Your task to perform on an android device: turn off priority inbox in the gmail app Image 0: 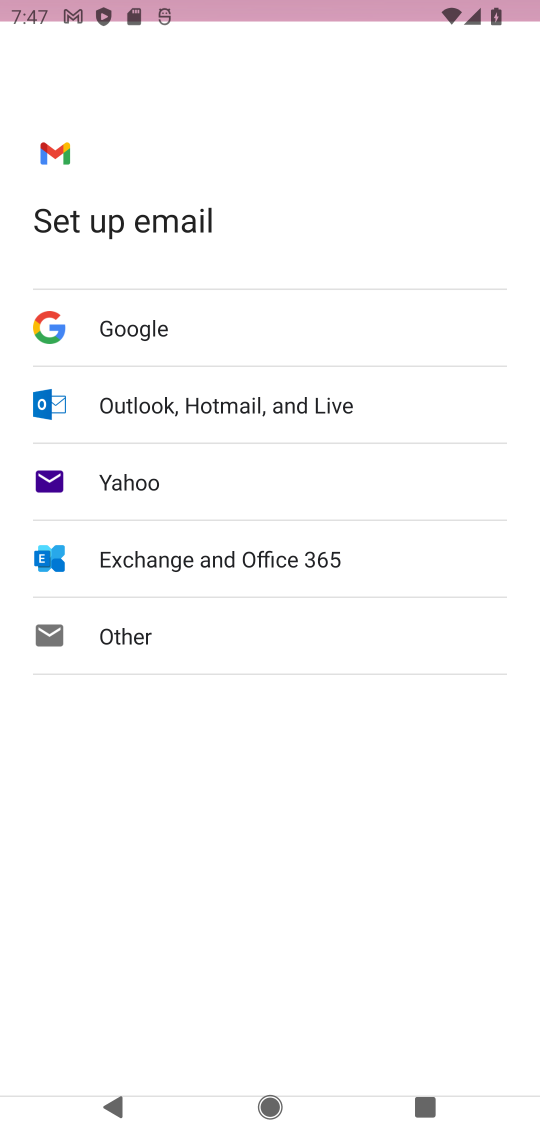
Step 0: press home button
Your task to perform on an android device: turn off priority inbox in the gmail app Image 1: 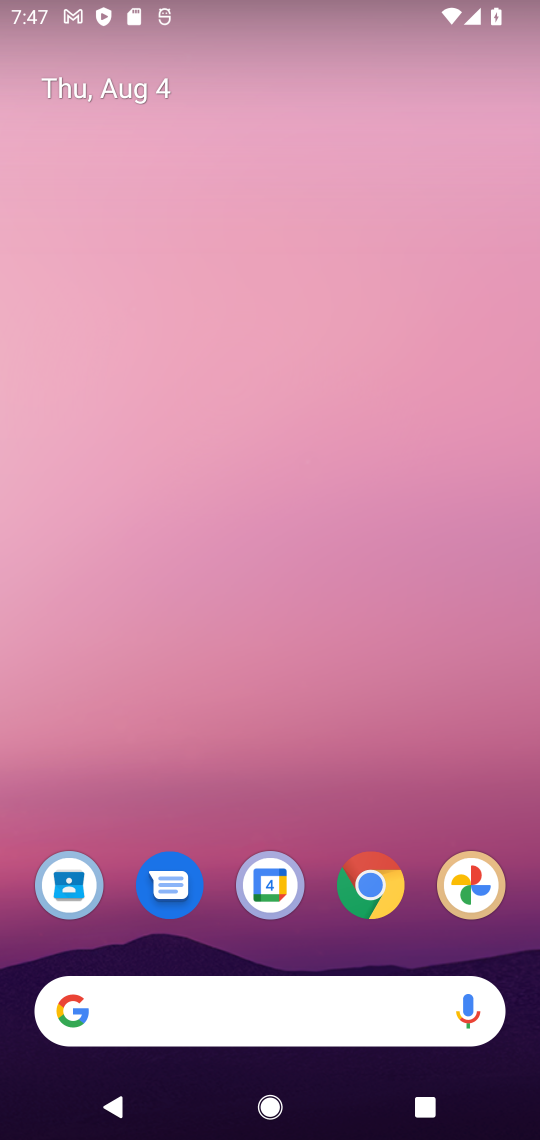
Step 1: drag from (289, 989) to (274, 4)
Your task to perform on an android device: turn off priority inbox in the gmail app Image 2: 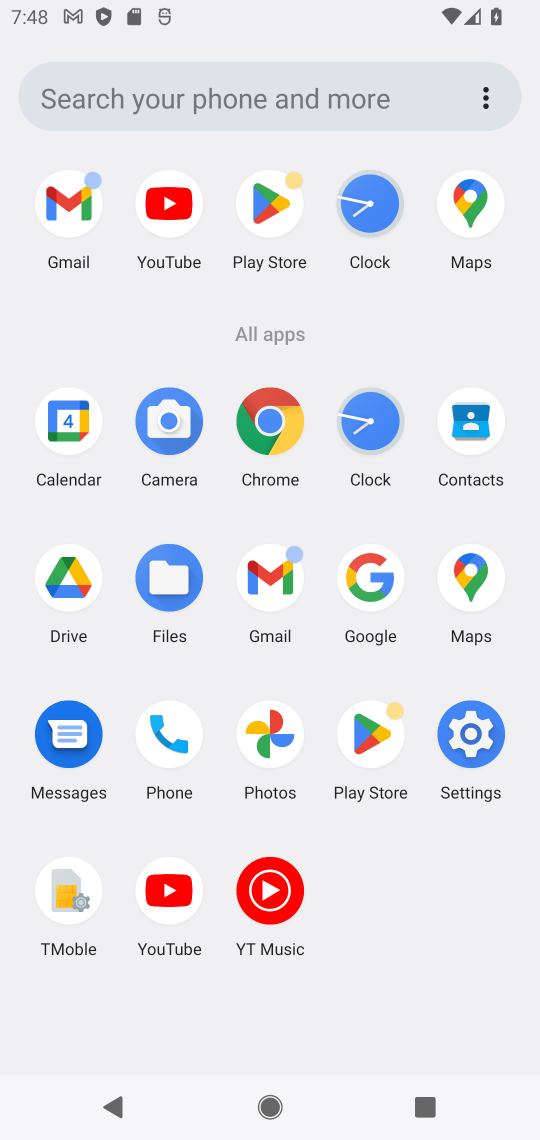
Step 2: click (259, 605)
Your task to perform on an android device: turn off priority inbox in the gmail app Image 3: 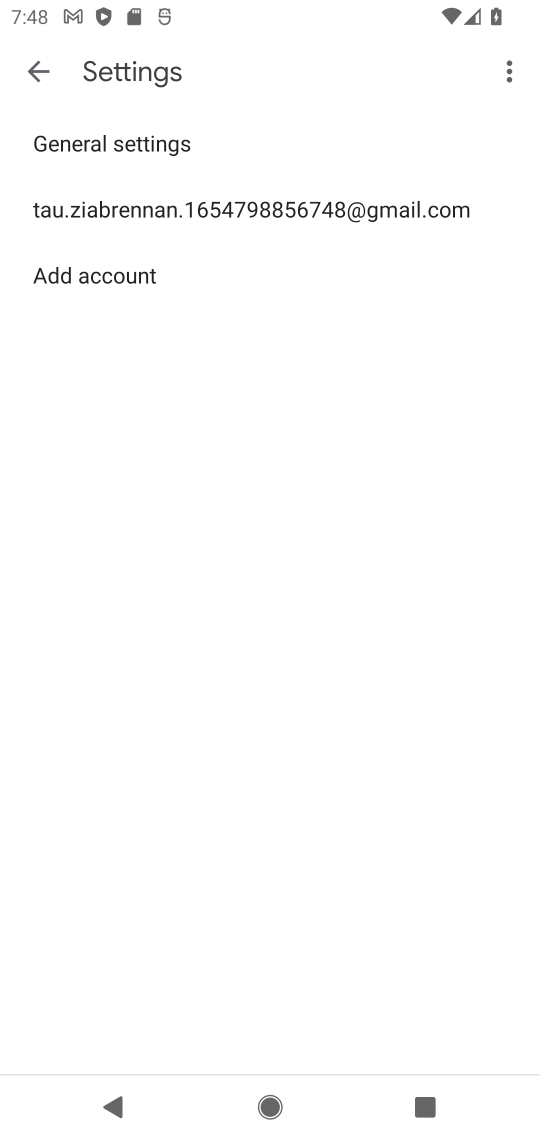
Step 3: click (218, 199)
Your task to perform on an android device: turn off priority inbox in the gmail app Image 4: 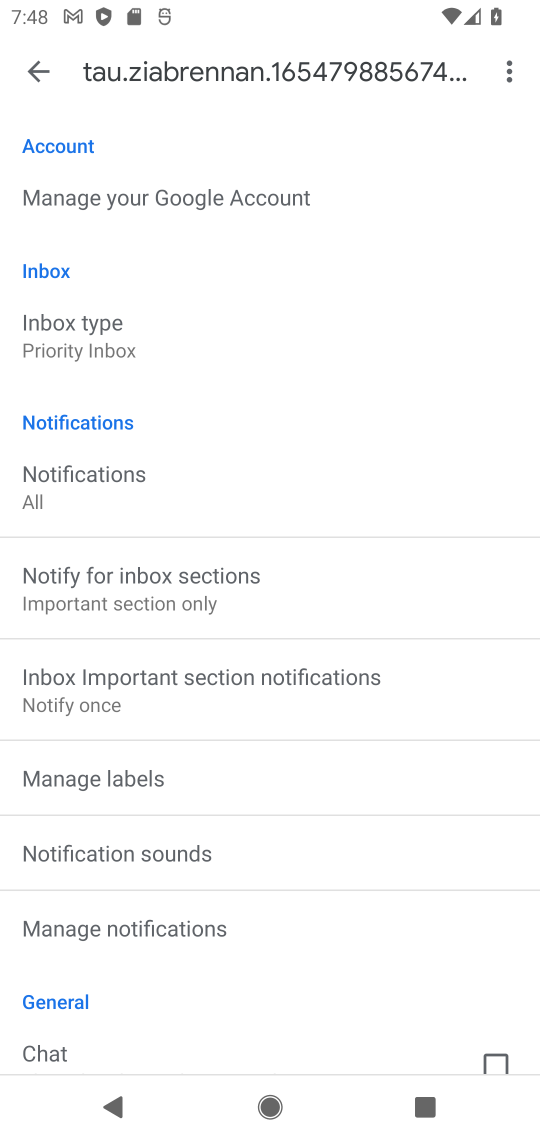
Step 4: click (133, 344)
Your task to perform on an android device: turn off priority inbox in the gmail app Image 5: 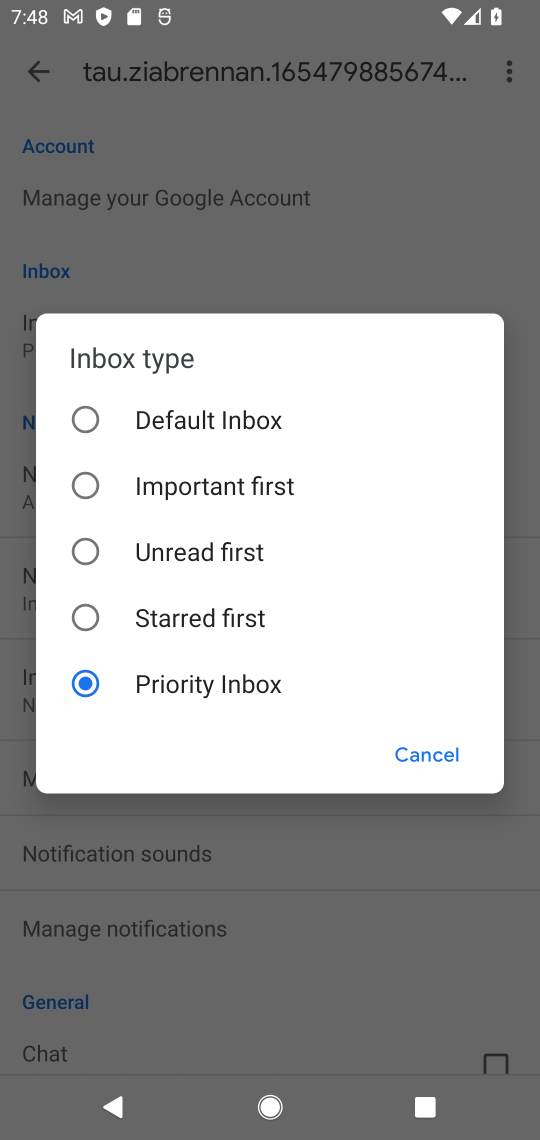
Step 5: click (147, 421)
Your task to perform on an android device: turn off priority inbox in the gmail app Image 6: 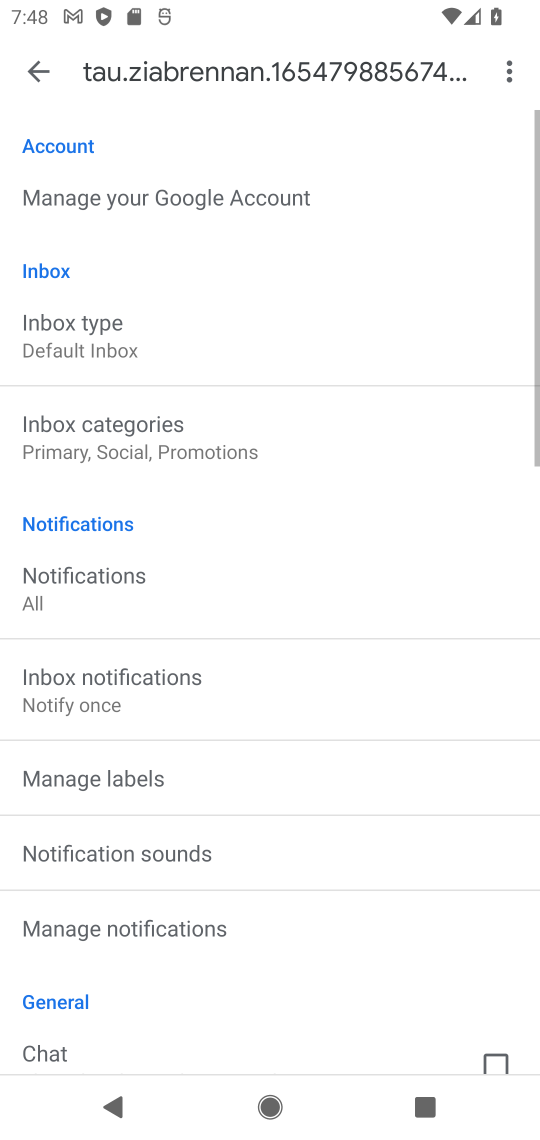
Step 6: task complete